Your task to perform on an android device: turn off notifications in google photos Image 0: 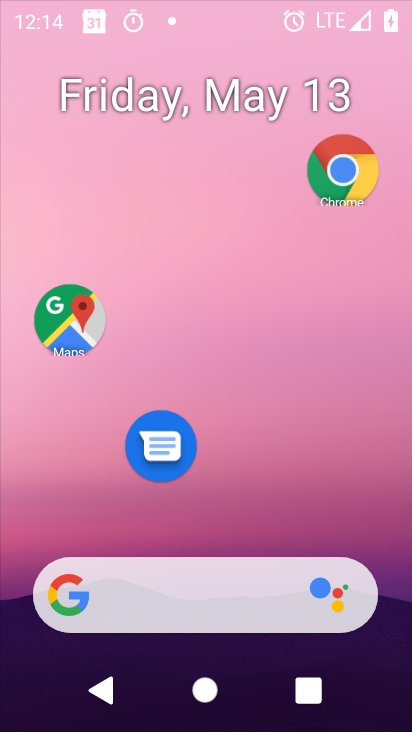
Step 0: drag from (294, 393) to (288, 14)
Your task to perform on an android device: turn off notifications in google photos Image 1: 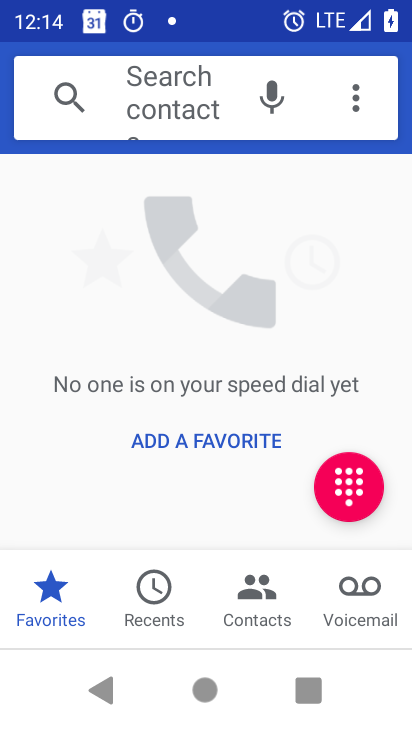
Step 1: press home button
Your task to perform on an android device: turn off notifications in google photos Image 2: 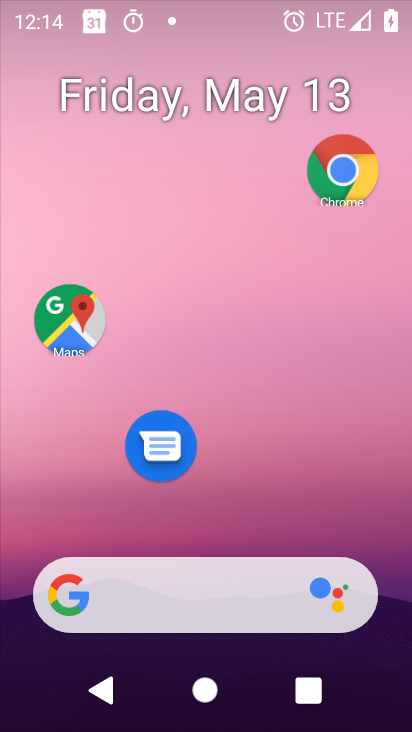
Step 2: drag from (216, 605) to (194, 111)
Your task to perform on an android device: turn off notifications in google photos Image 3: 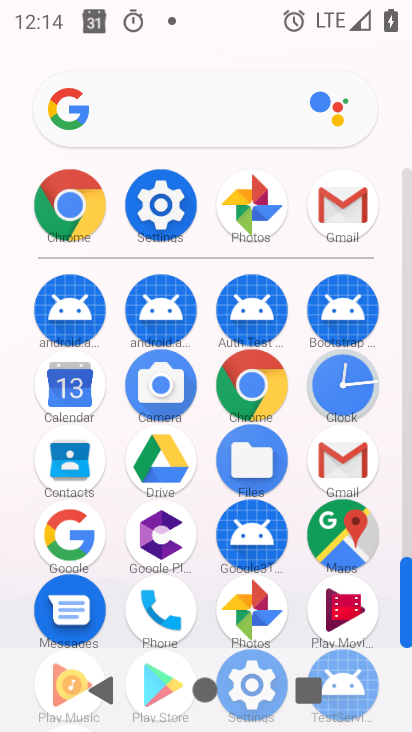
Step 3: click (268, 614)
Your task to perform on an android device: turn off notifications in google photos Image 4: 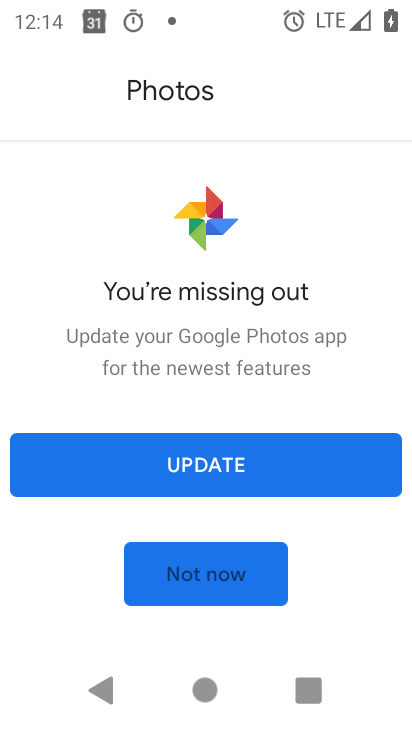
Step 4: click (191, 470)
Your task to perform on an android device: turn off notifications in google photos Image 5: 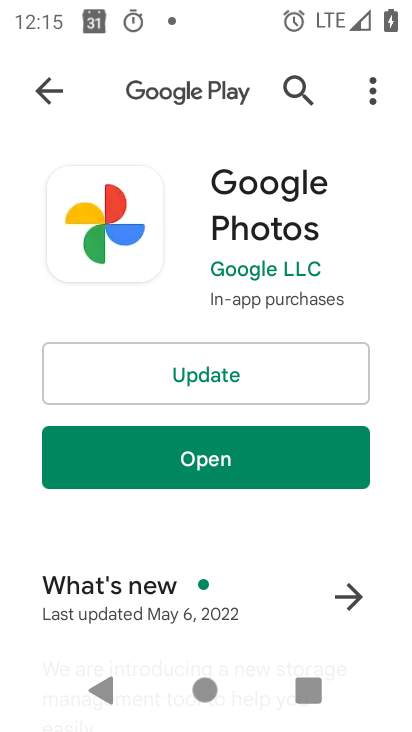
Step 5: drag from (248, 379) to (336, 379)
Your task to perform on an android device: turn off notifications in google photos Image 6: 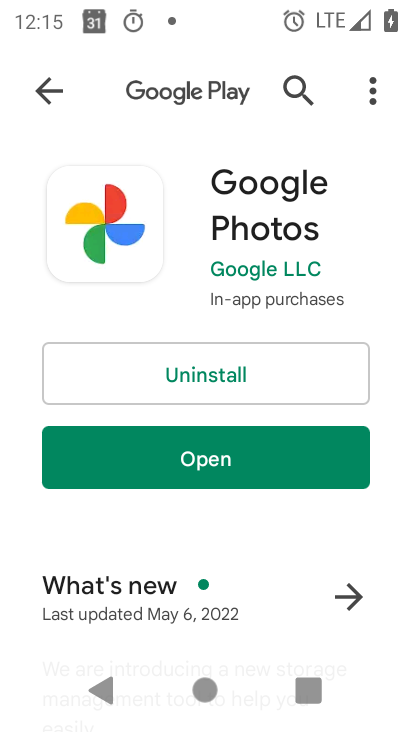
Step 6: click (211, 470)
Your task to perform on an android device: turn off notifications in google photos Image 7: 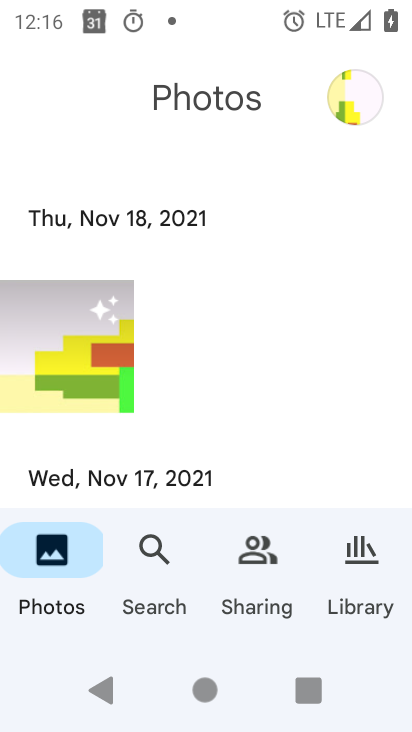
Step 7: click (361, 103)
Your task to perform on an android device: turn off notifications in google photos Image 8: 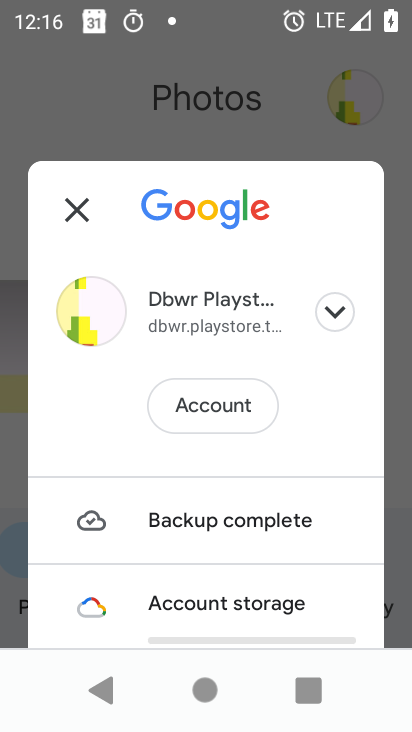
Step 8: drag from (269, 574) to (257, 112)
Your task to perform on an android device: turn off notifications in google photos Image 9: 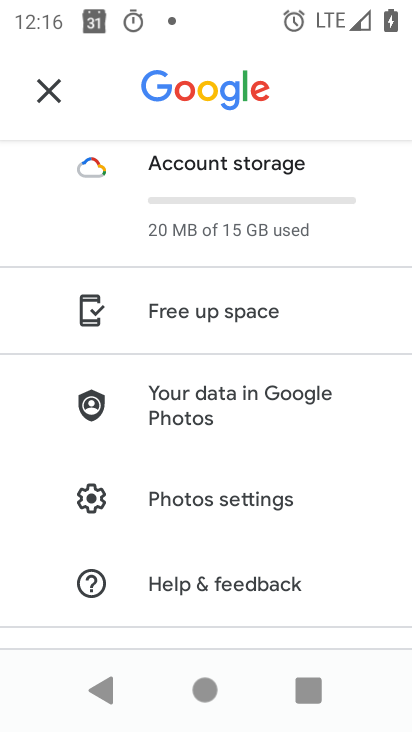
Step 9: click (177, 512)
Your task to perform on an android device: turn off notifications in google photos Image 10: 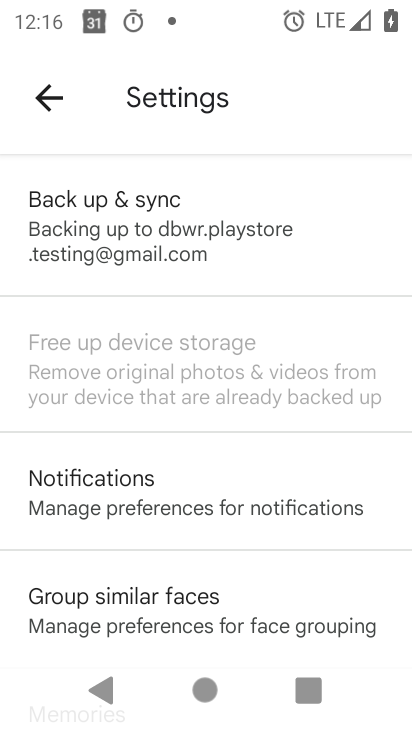
Step 10: click (187, 513)
Your task to perform on an android device: turn off notifications in google photos Image 11: 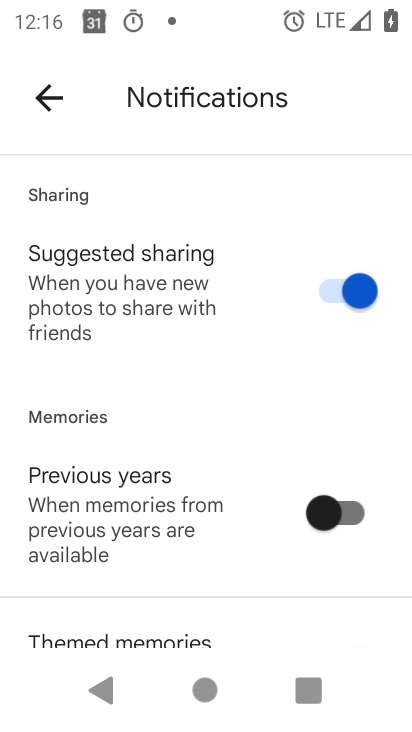
Step 11: drag from (194, 613) to (258, 101)
Your task to perform on an android device: turn off notifications in google photos Image 12: 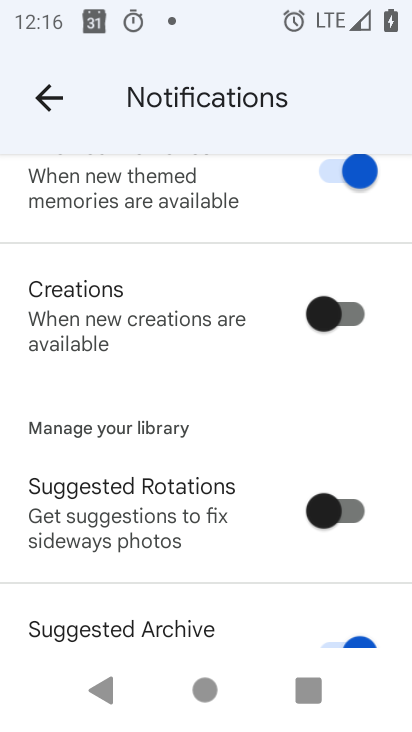
Step 12: drag from (181, 227) to (183, 716)
Your task to perform on an android device: turn off notifications in google photos Image 13: 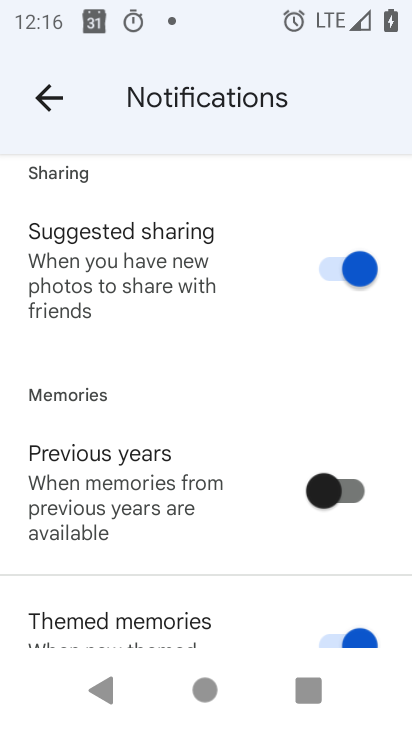
Step 13: drag from (141, 587) to (103, 168)
Your task to perform on an android device: turn off notifications in google photos Image 14: 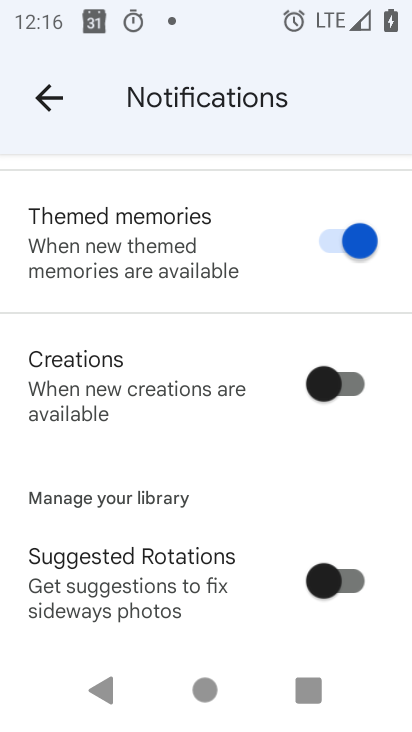
Step 14: drag from (195, 581) to (196, 135)
Your task to perform on an android device: turn off notifications in google photos Image 15: 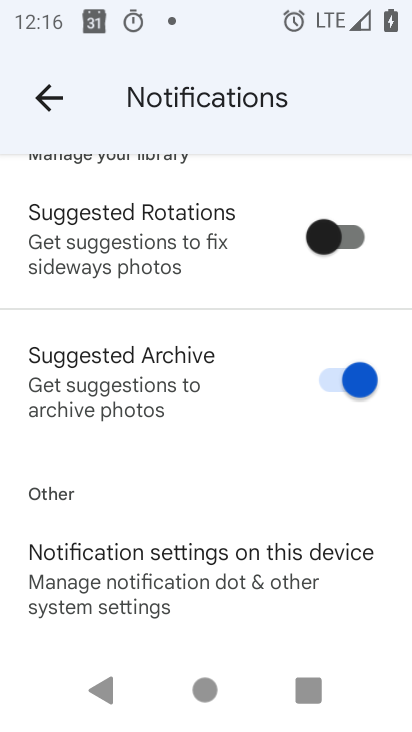
Step 15: click (223, 558)
Your task to perform on an android device: turn off notifications in google photos Image 16: 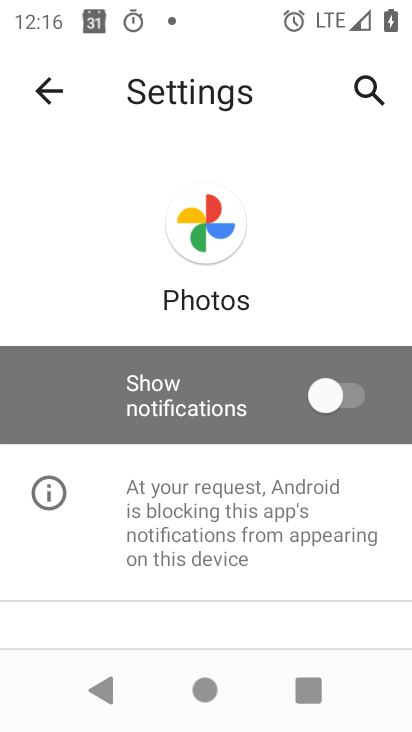
Step 16: task complete